Your task to perform on an android device: What's on my calendar tomorrow? Image 0: 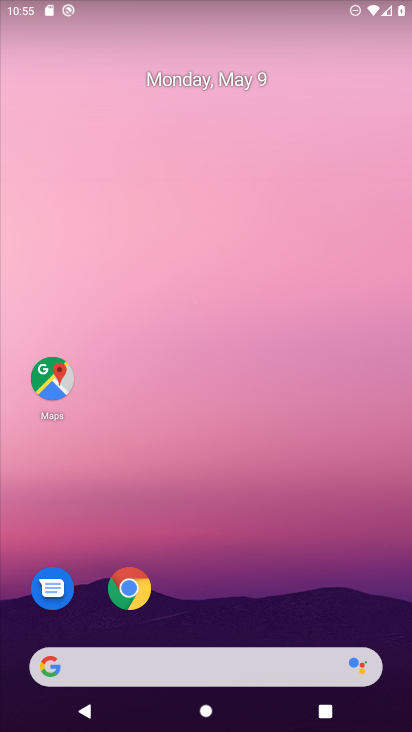
Step 0: drag from (226, 589) to (208, 85)
Your task to perform on an android device: What's on my calendar tomorrow? Image 1: 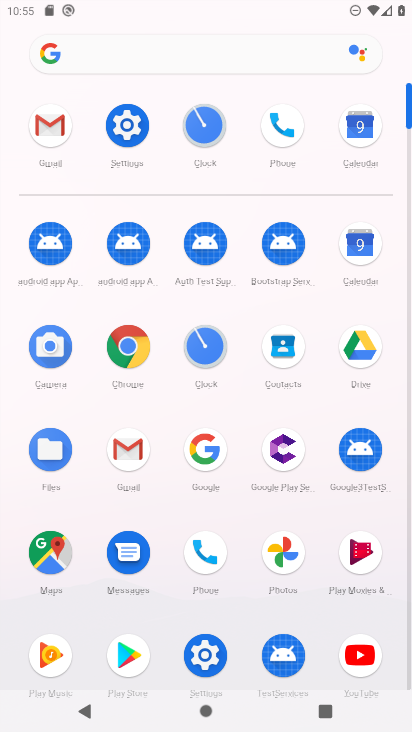
Step 1: click (362, 132)
Your task to perform on an android device: What's on my calendar tomorrow? Image 2: 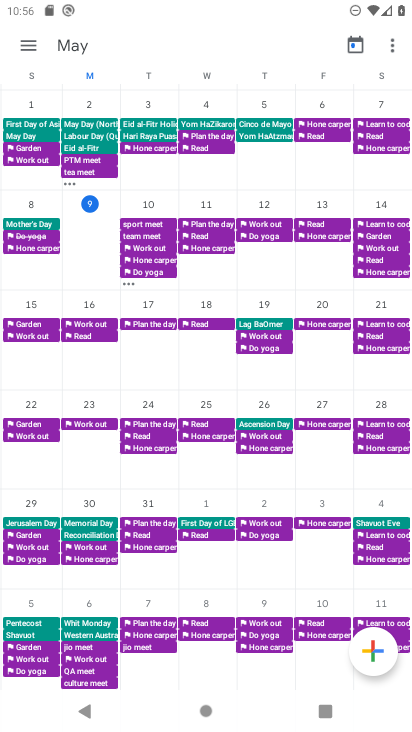
Step 2: task complete